Your task to perform on an android device: set the stopwatch Image 0: 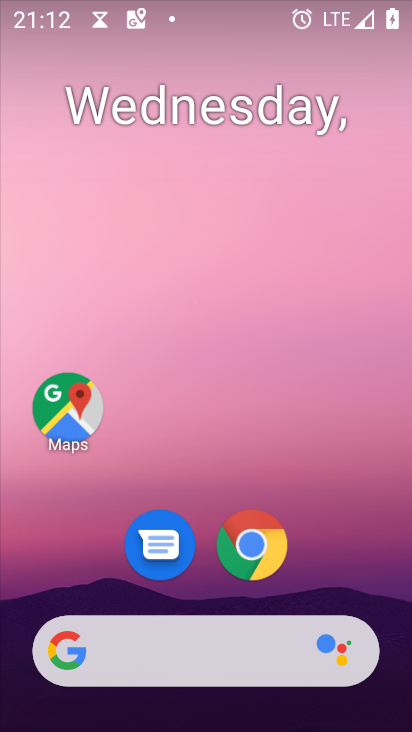
Step 0: press home button
Your task to perform on an android device: set the stopwatch Image 1: 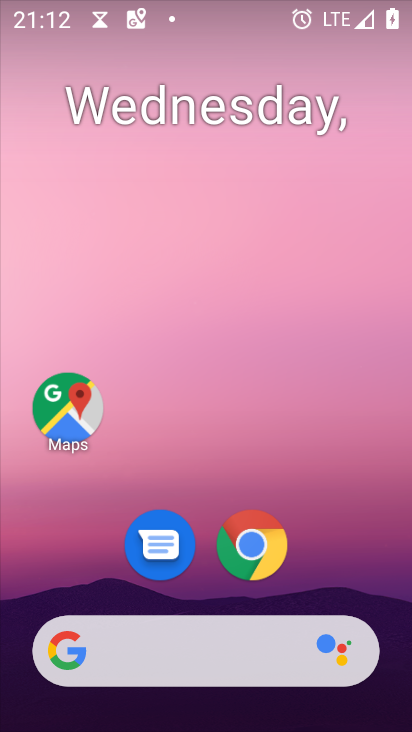
Step 1: drag from (199, 649) to (328, 216)
Your task to perform on an android device: set the stopwatch Image 2: 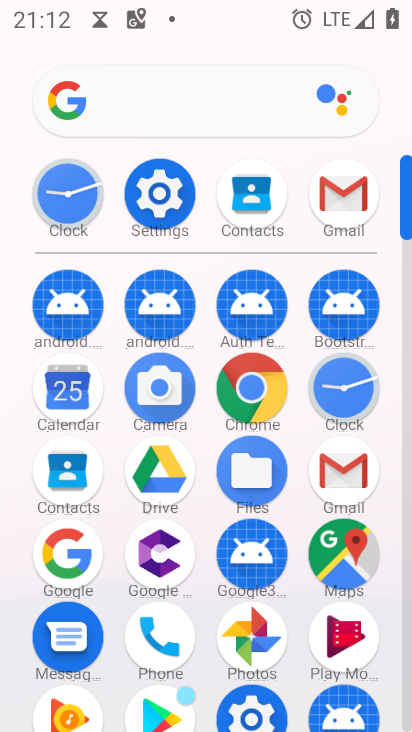
Step 2: click (352, 403)
Your task to perform on an android device: set the stopwatch Image 3: 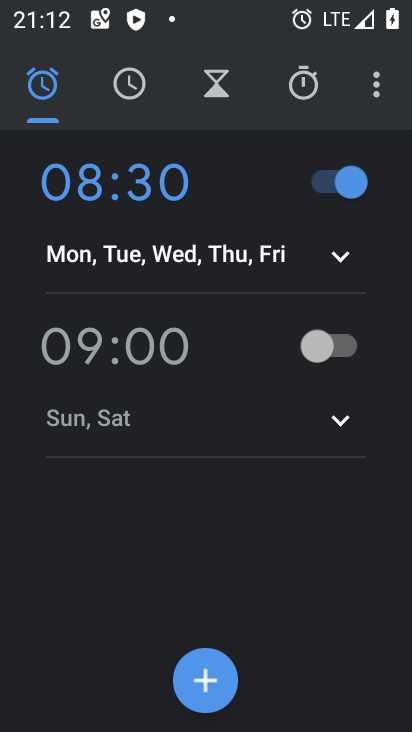
Step 3: click (305, 94)
Your task to perform on an android device: set the stopwatch Image 4: 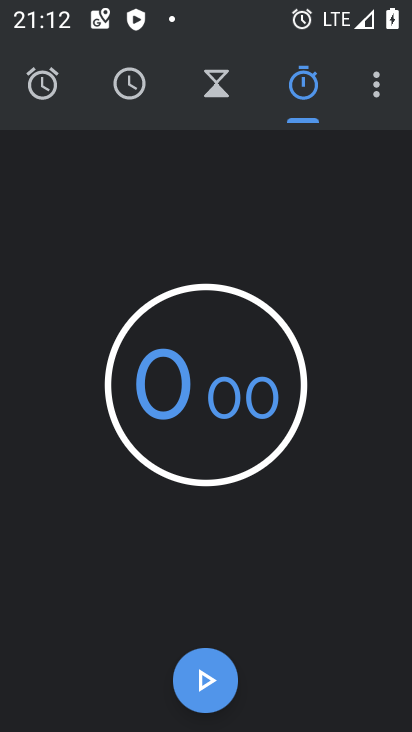
Step 4: click (213, 399)
Your task to perform on an android device: set the stopwatch Image 5: 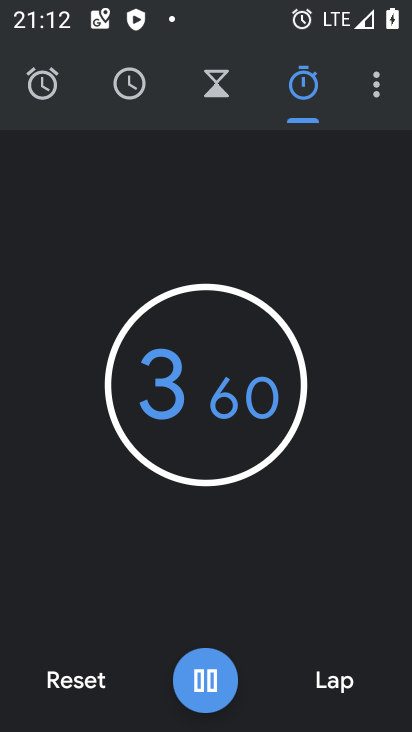
Step 5: click (213, 400)
Your task to perform on an android device: set the stopwatch Image 6: 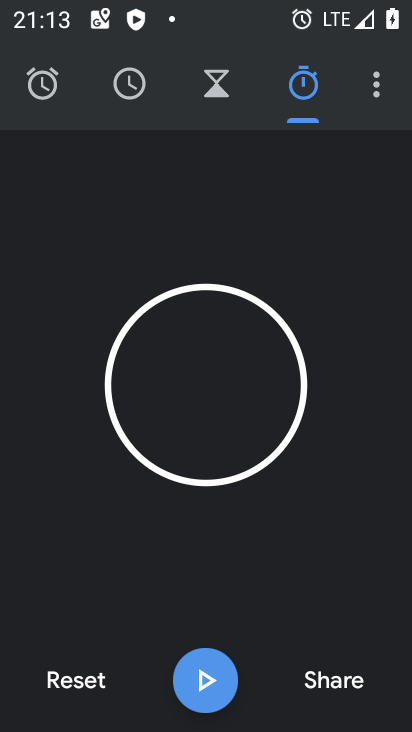
Step 6: task complete